Your task to perform on an android device: change the clock display to digital Image 0: 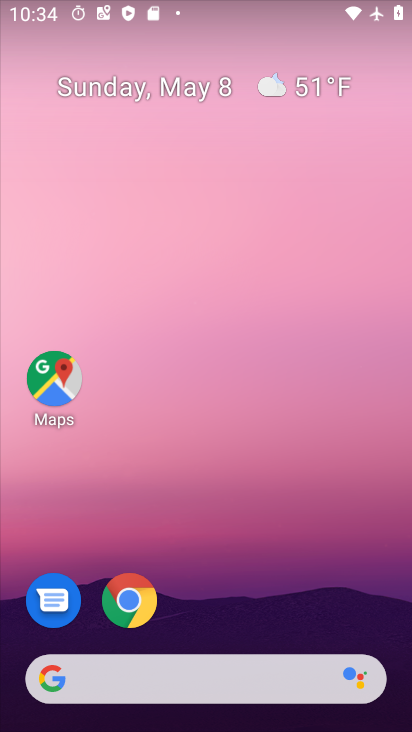
Step 0: drag from (271, 558) to (262, 38)
Your task to perform on an android device: change the clock display to digital Image 1: 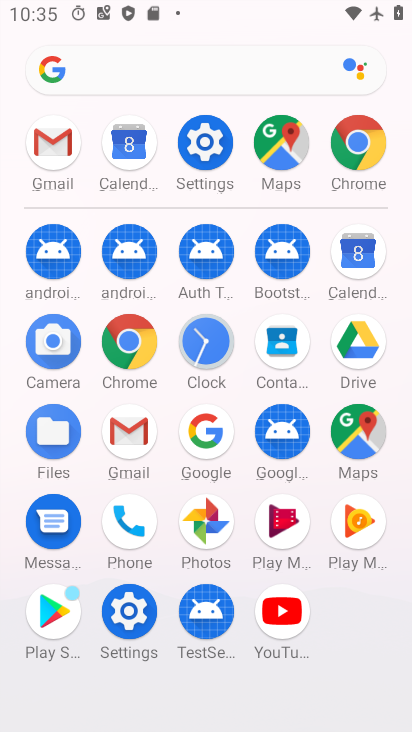
Step 1: click (203, 341)
Your task to perform on an android device: change the clock display to digital Image 2: 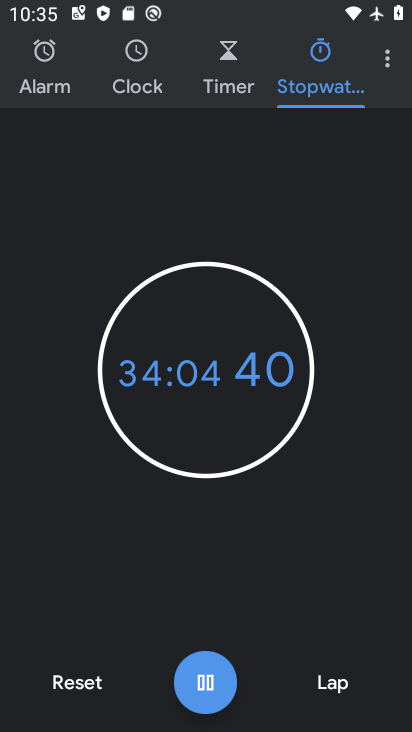
Step 2: click (388, 54)
Your task to perform on an android device: change the clock display to digital Image 3: 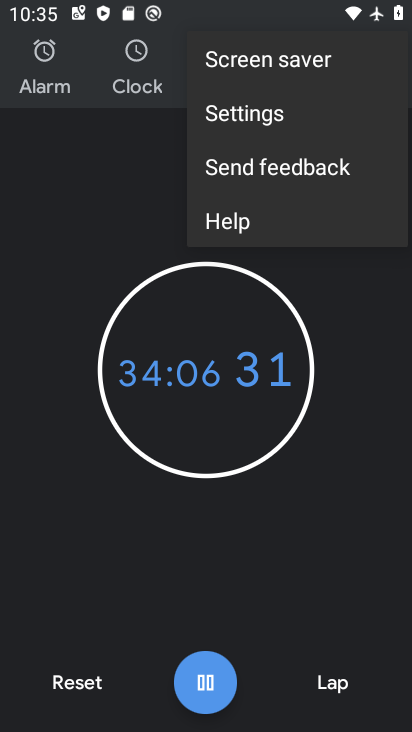
Step 3: click (279, 112)
Your task to perform on an android device: change the clock display to digital Image 4: 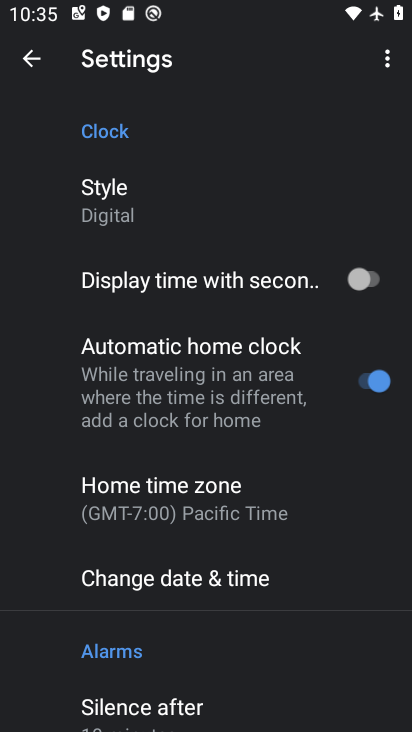
Step 4: task complete